Your task to perform on an android device: Open Android settings Image 0: 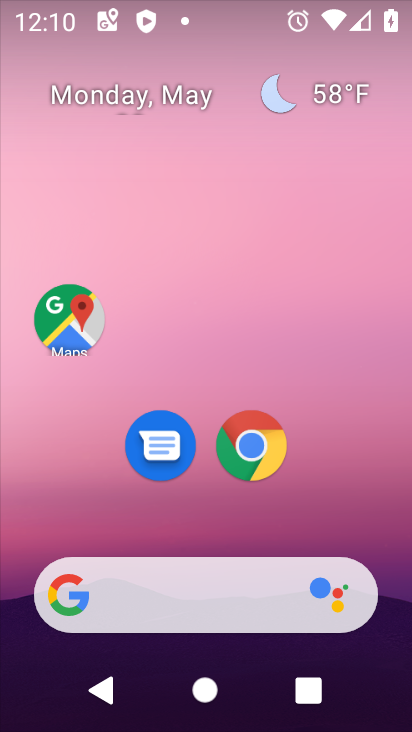
Step 0: drag from (206, 523) to (201, 89)
Your task to perform on an android device: Open Android settings Image 1: 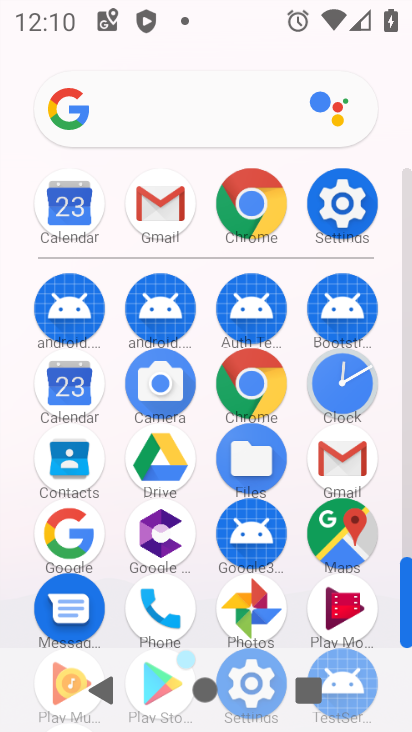
Step 1: click (339, 194)
Your task to perform on an android device: Open Android settings Image 2: 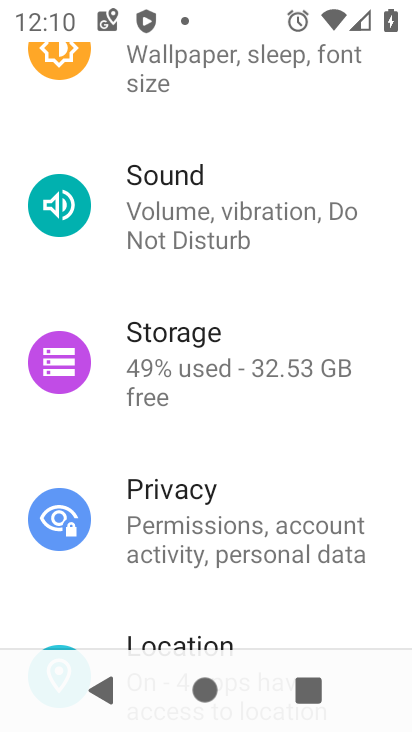
Step 2: drag from (237, 605) to (220, 60)
Your task to perform on an android device: Open Android settings Image 3: 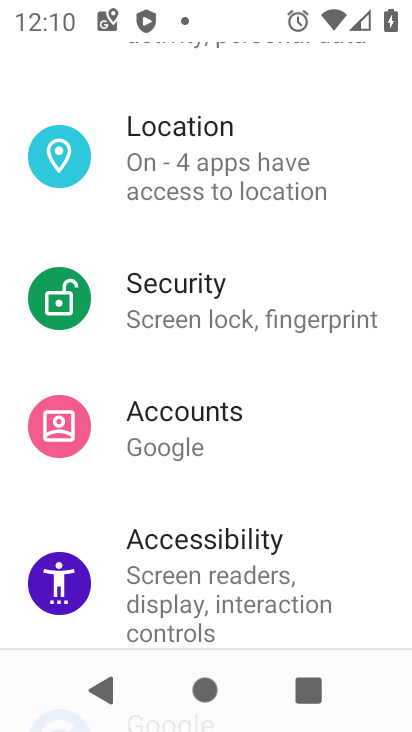
Step 3: drag from (222, 617) to (222, 46)
Your task to perform on an android device: Open Android settings Image 4: 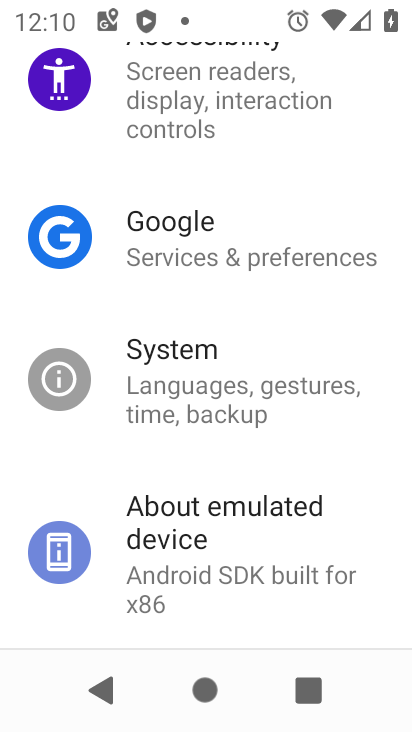
Step 4: click (231, 554)
Your task to perform on an android device: Open Android settings Image 5: 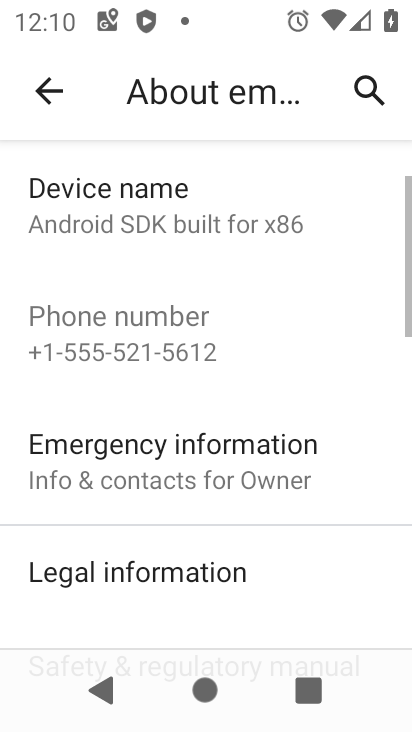
Step 5: drag from (214, 618) to (209, 124)
Your task to perform on an android device: Open Android settings Image 6: 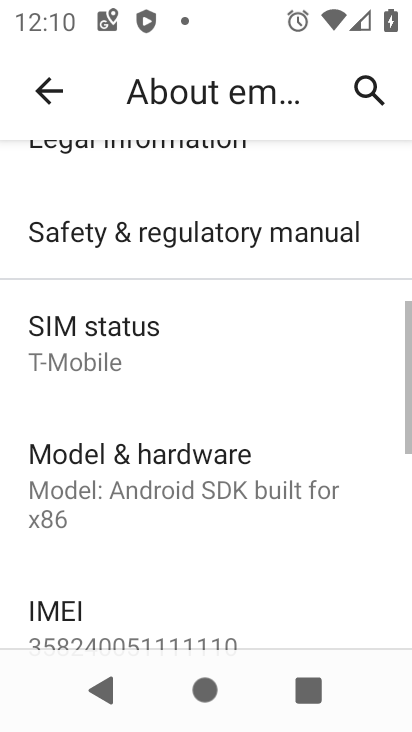
Step 6: drag from (179, 587) to (222, 184)
Your task to perform on an android device: Open Android settings Image 7: 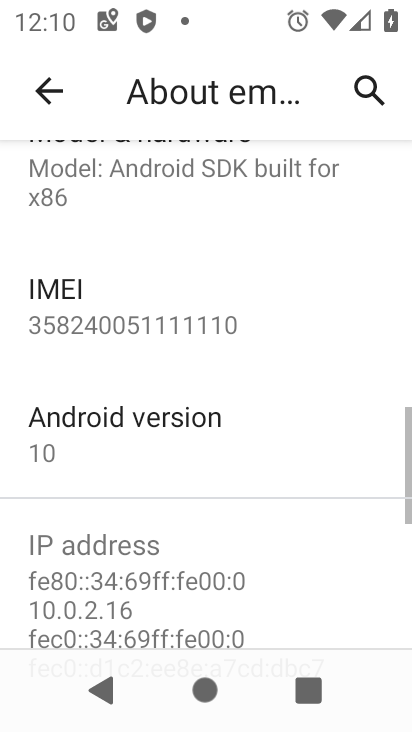
Step 7: click (96, 431)
Your task to perform on an android device: Open Android settings Image 8: 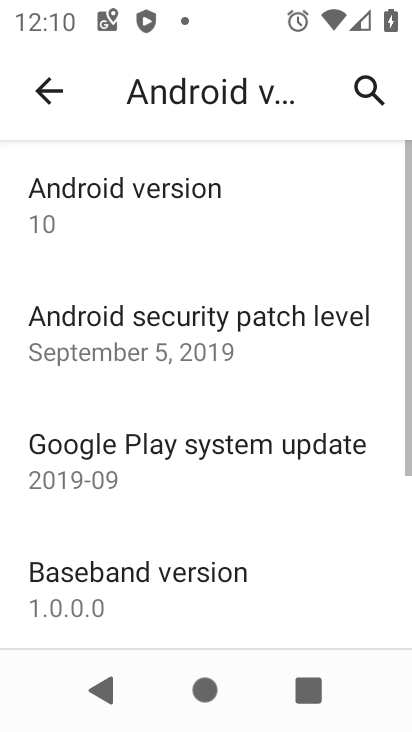
Step 8: task complete